Your task to perform on an android device: Search for bose soundlink on target.com, select the first entry, add it to the cart, then select checkout. Image 0: 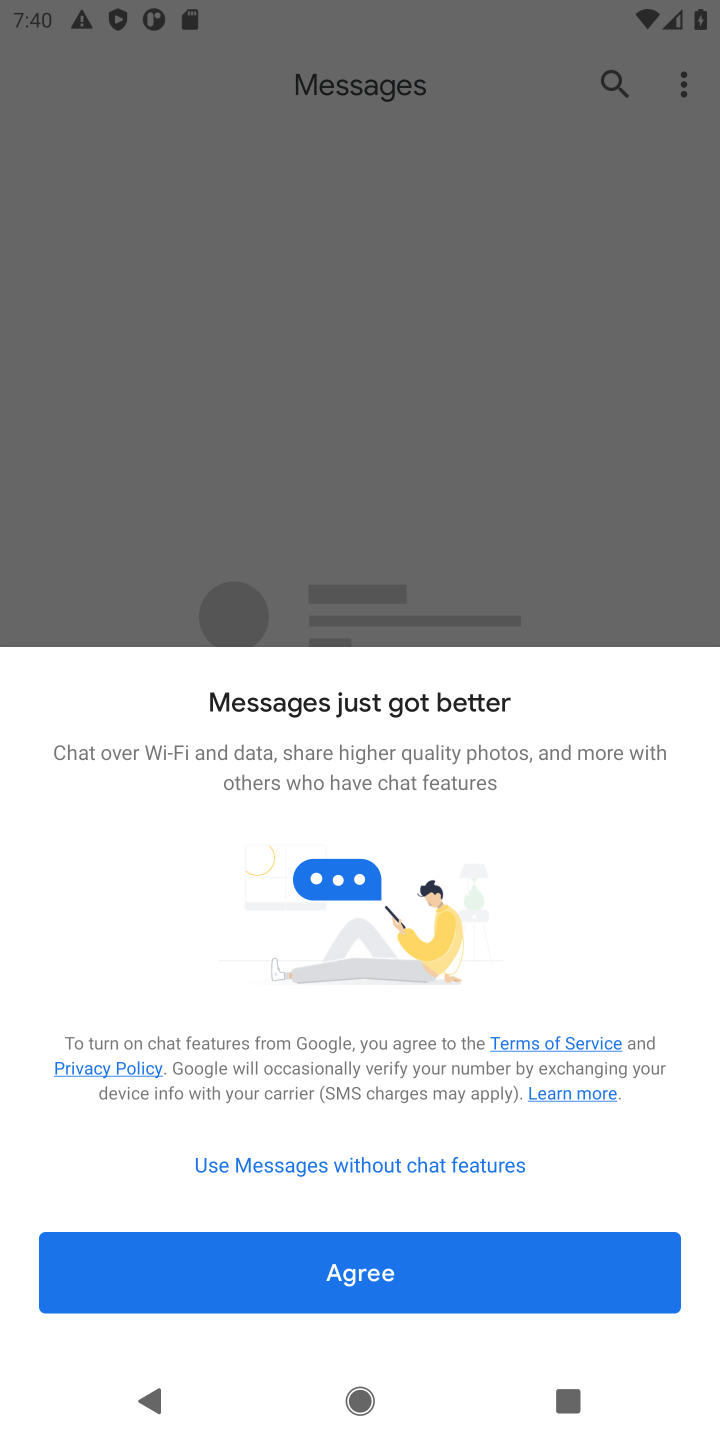
Step 0: press home button
Your task to perform on an android device: Search for bose soundlink on target.com, select the first entry, add it to the cart, then select checkout. Image 1: 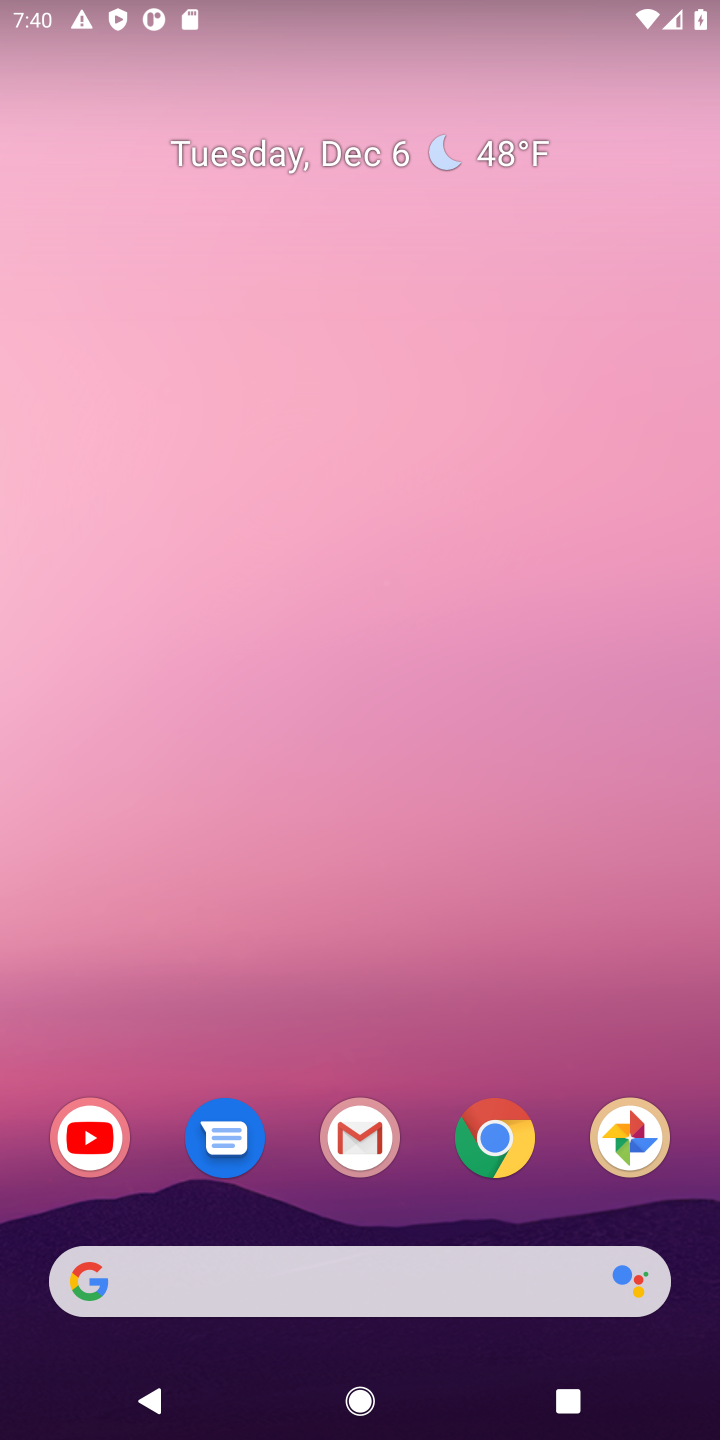
Step 1: click (489, 1156)
Your task to perform on an android device: Search for bose soundlink on target.com, select the first entry, add it to the cart, then select checkout. Image 2: 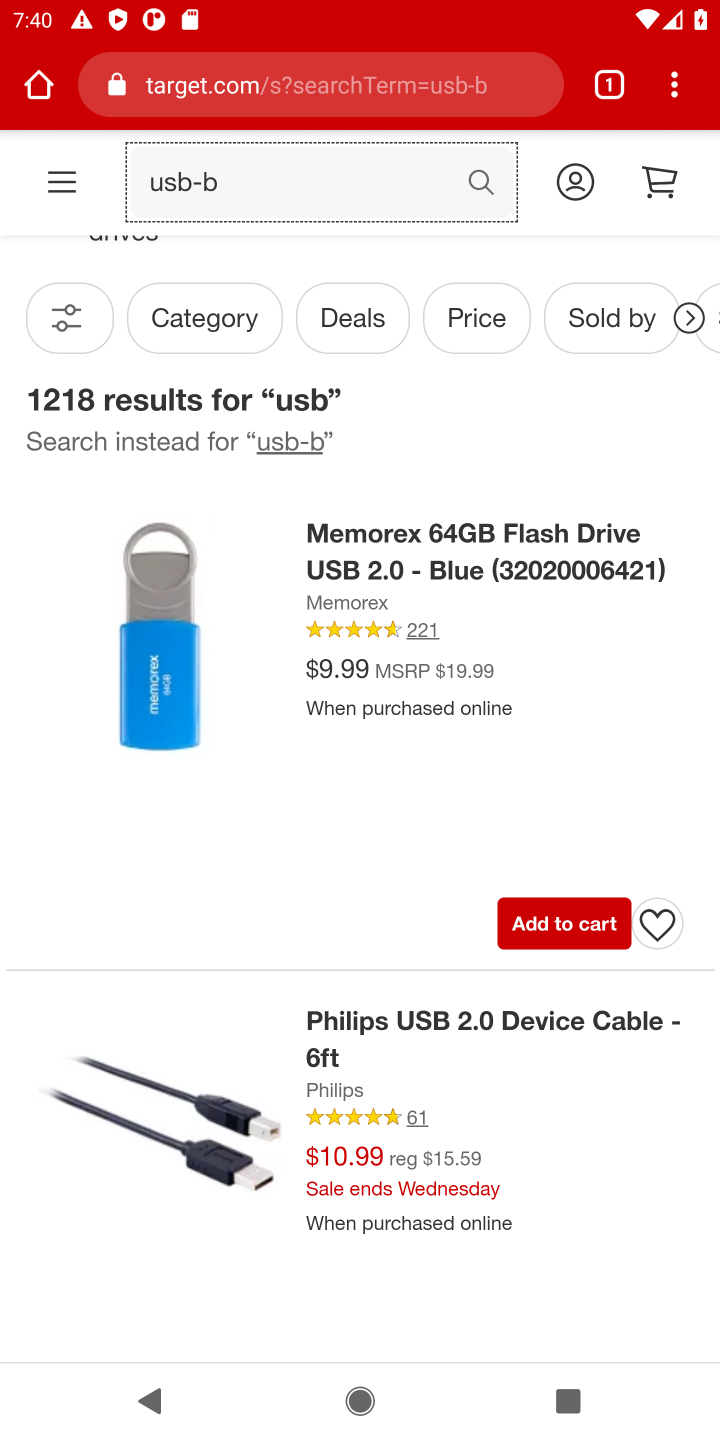
Step 2: click (236, 189)
Your task to perform on an android device: Search for bose soundlink on target.com, select the first entry, add it to the cart, then select checkout. Image 3: 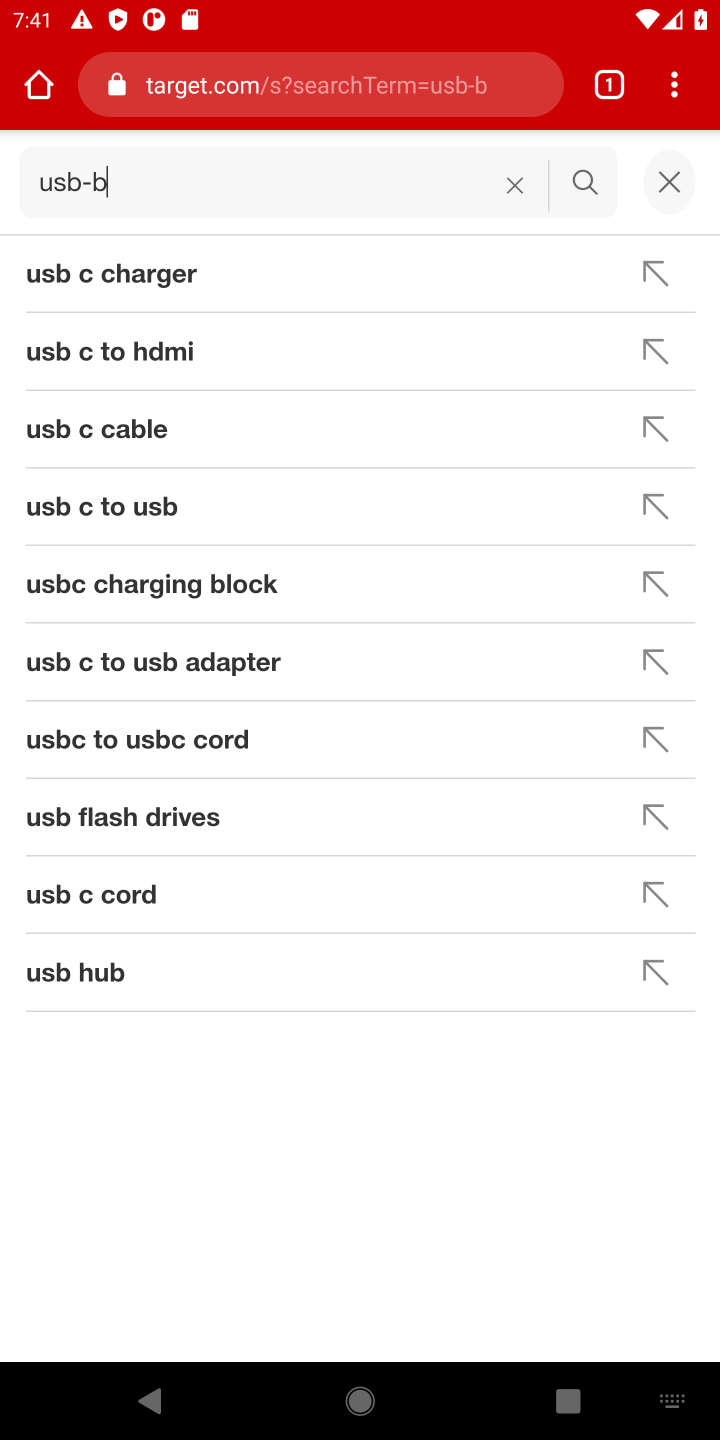
Step 3: click (518, 185)
Your task to perform on an android device: Search for bose soundlink on target.com, select the first entry, add it to the cart, then select checkout. Image 4: 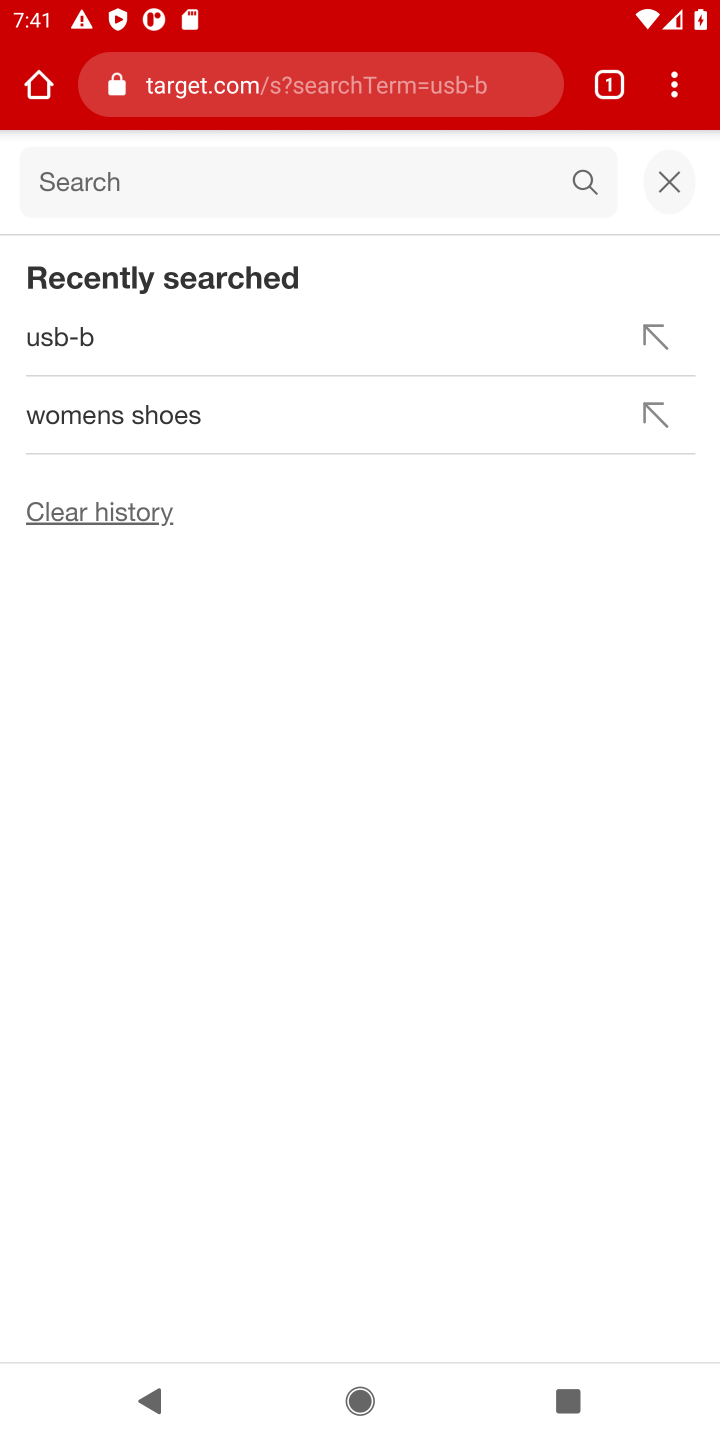
Step 4: click (57, 177)
Your task to perform on an android device: Search for bose soundlink on target.com, select the first entry, add it to the cart, then select checkout. Image 5: 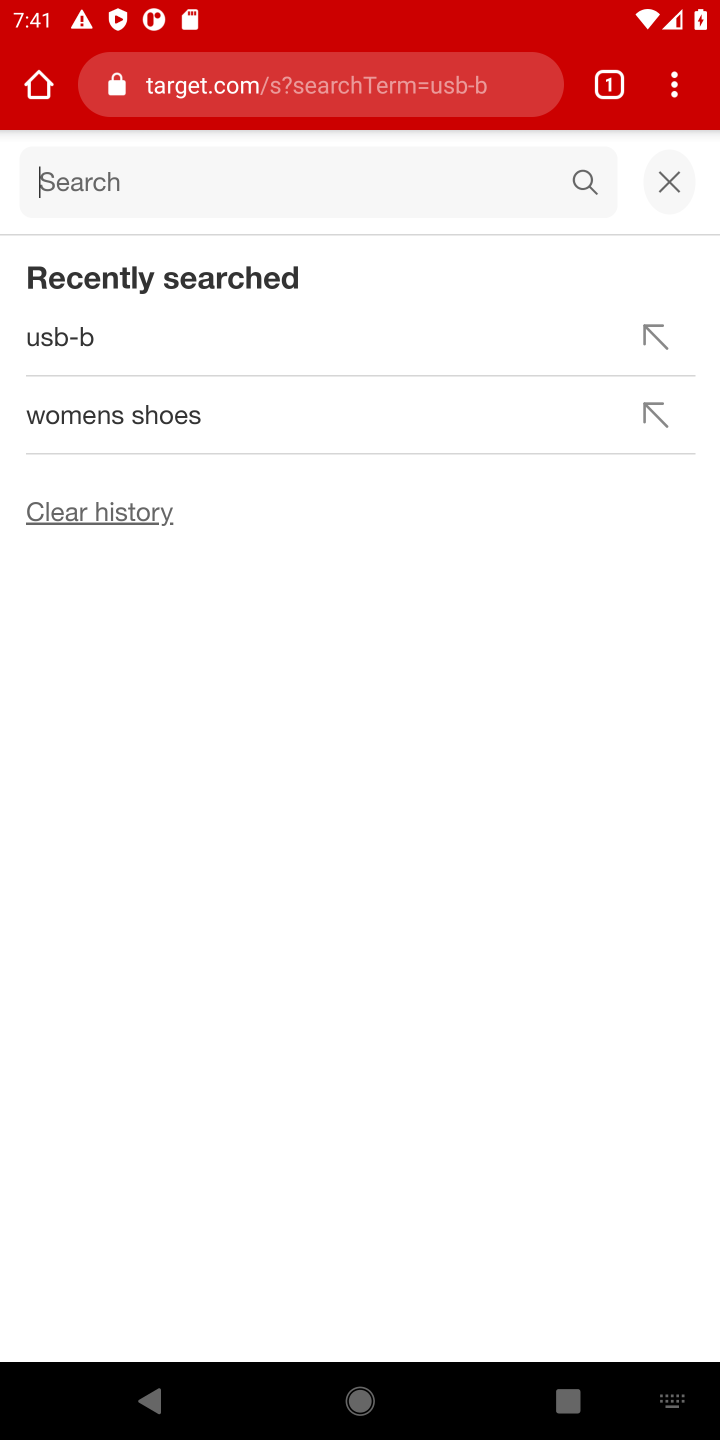
Step 5: type " bose soundlink"
Your task to perform on an android device: Search for bose soundlink on target.com, select the first entry, add it to the cart, then select checkout. Image 6: 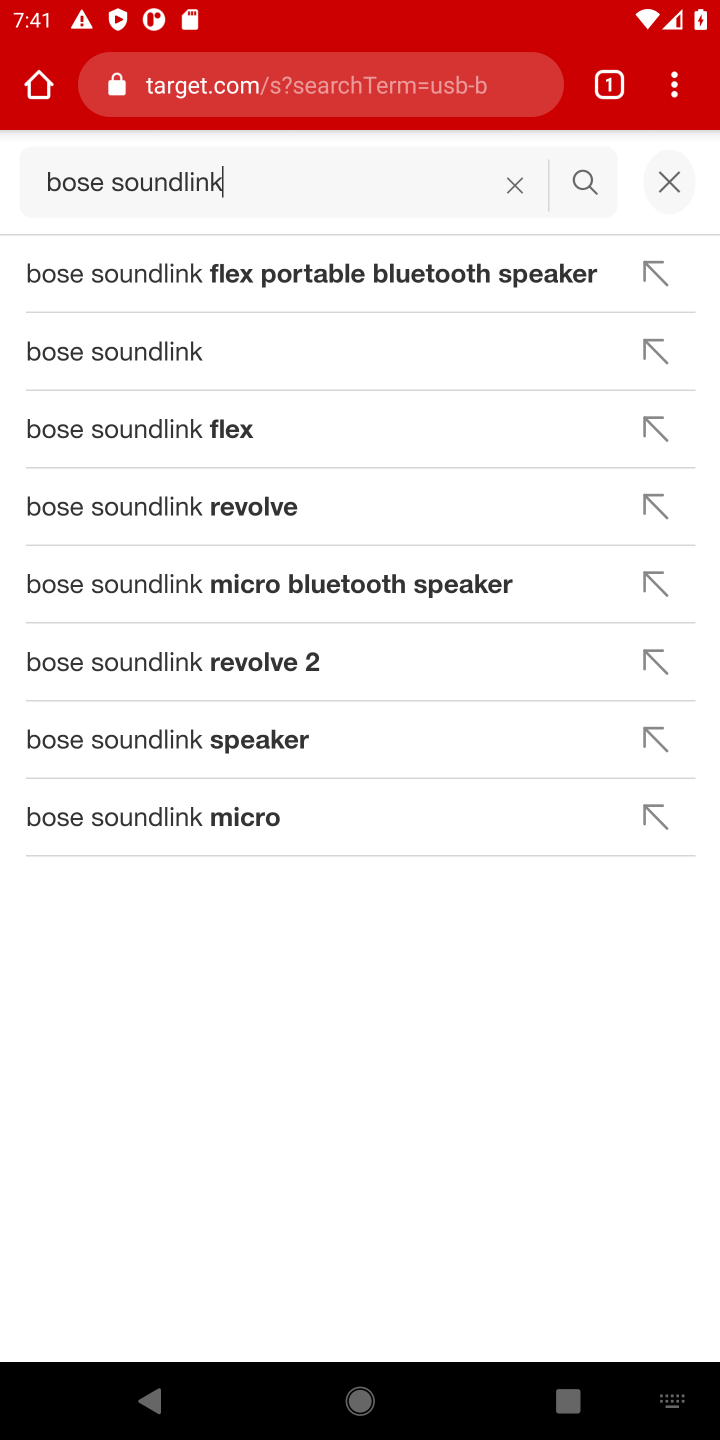
Step 6: click (159, 351)
Your task to perform on an android device: Search for bose soundlink on target.com, select the first entry, add it to the cart, then select checkout. Image 7: 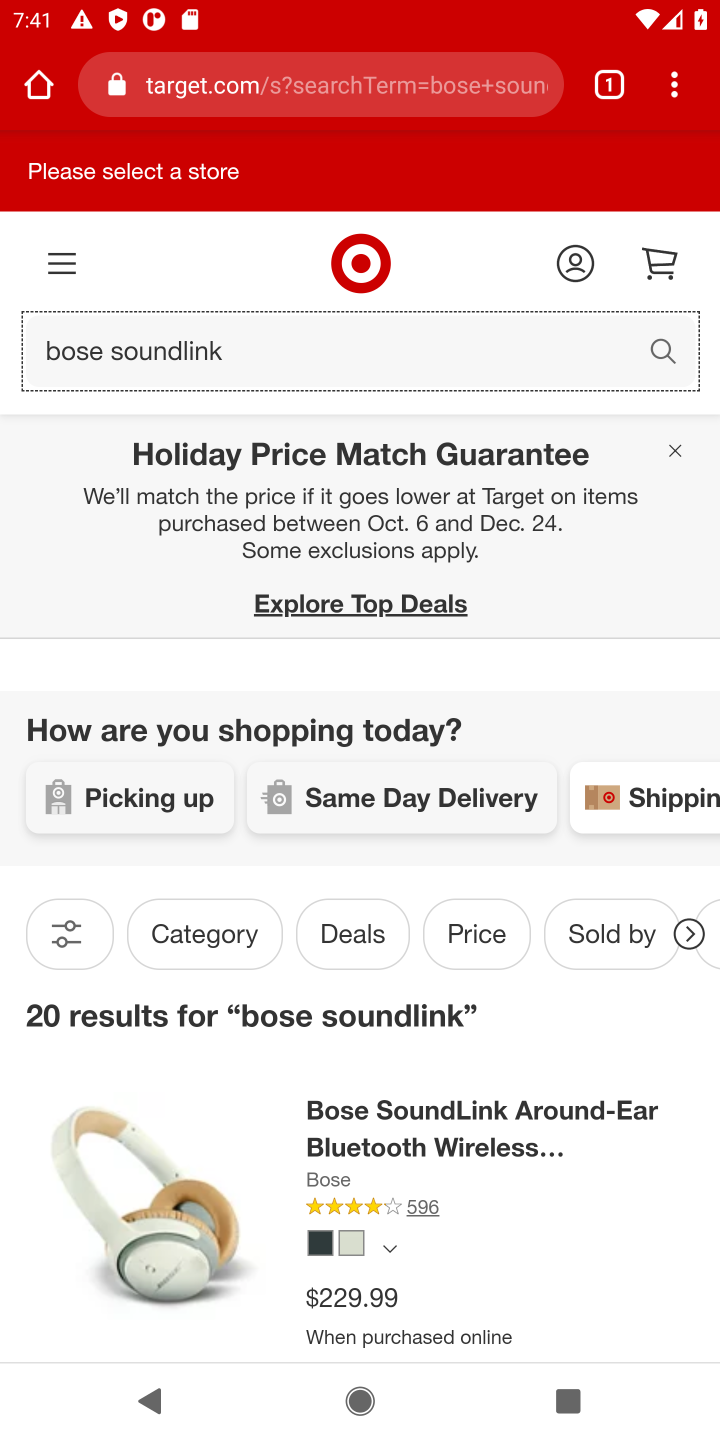
Step 7: drag from (392, 1159) to (363, 675)
Your task to perform on an android device: Search for bose soundlink on target.com, select the first entry, add it to the cart, then select checkout. Image 8: 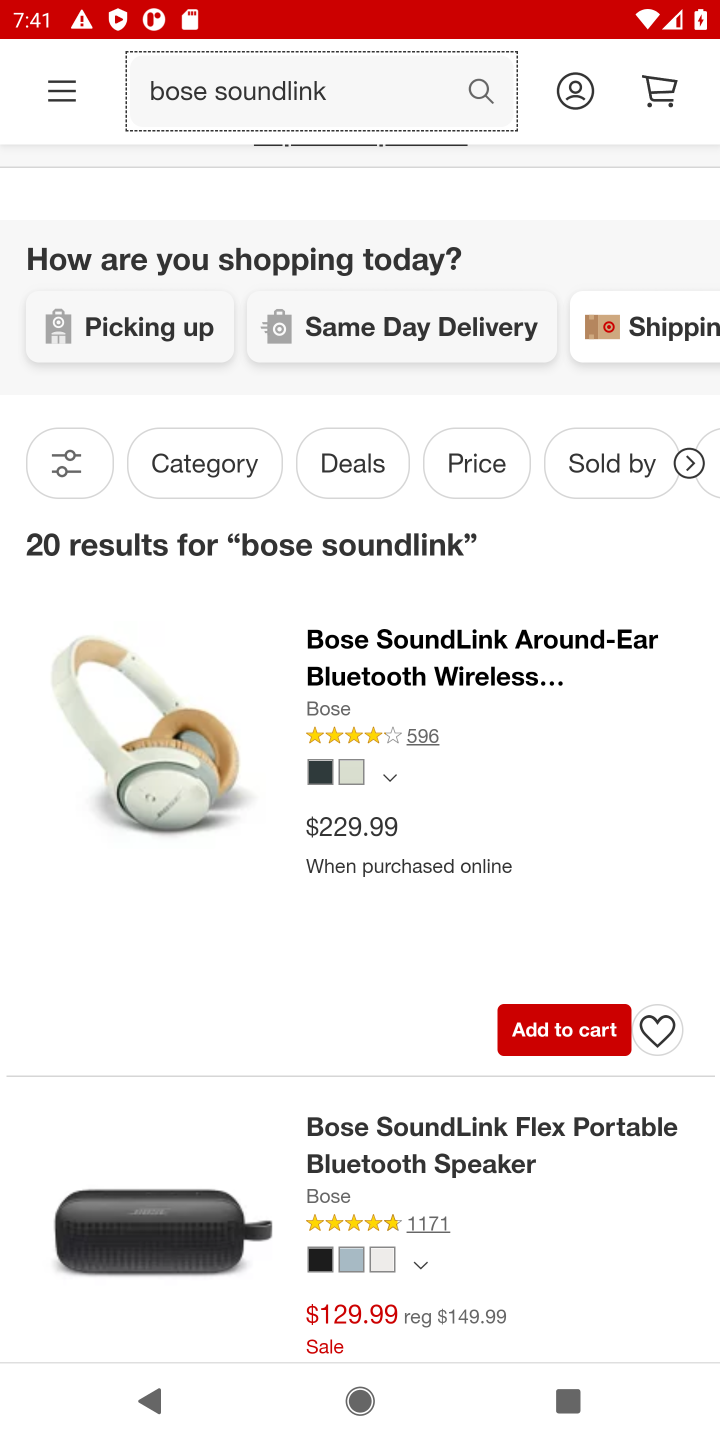
Step 8: click (557, 1036)
Your task to perform on an android device: Search for bose soundlink on target.com, select the first entry, add it to the cart, then select checkout. Image 9: 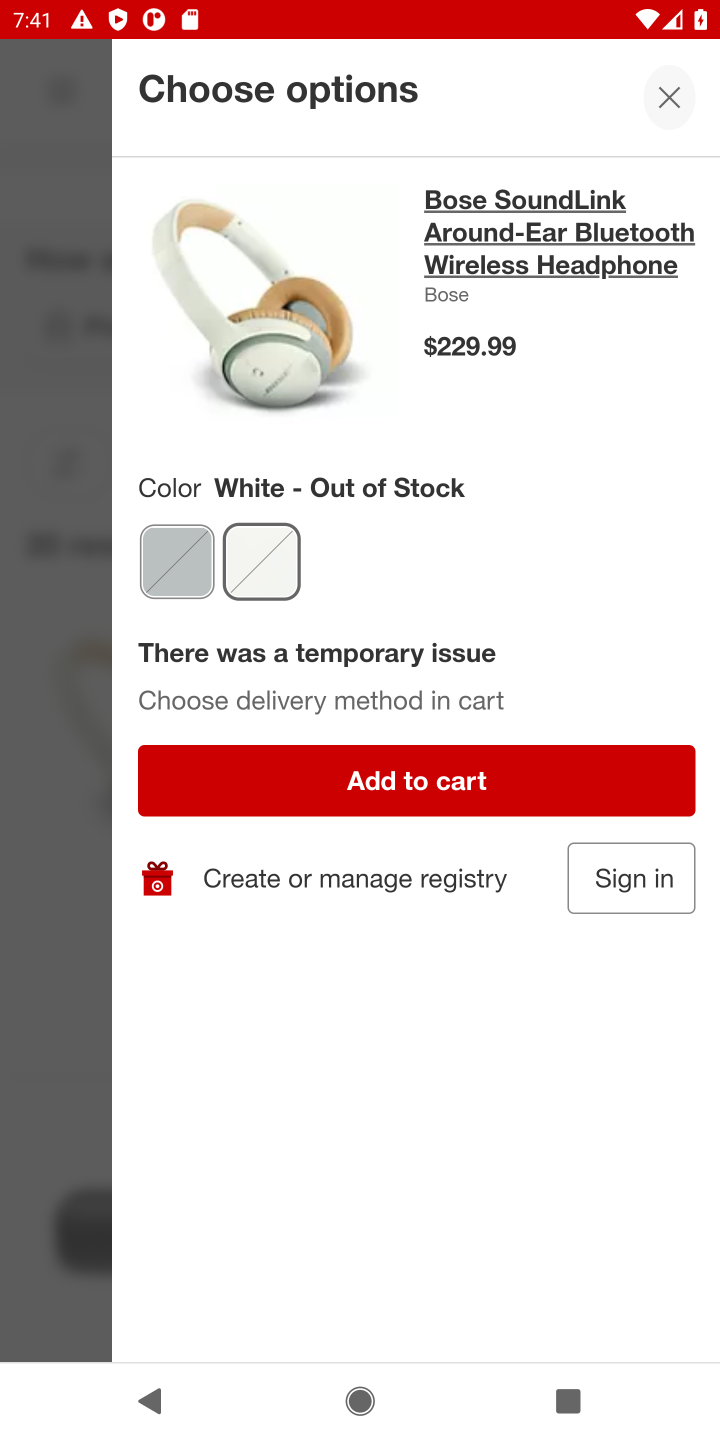
Step 9: click (395, 792)
Your task to perform on an android device: Search for bose soundlink on target.com, select the first entry, add it to the cart, then select checkout. Image 10: 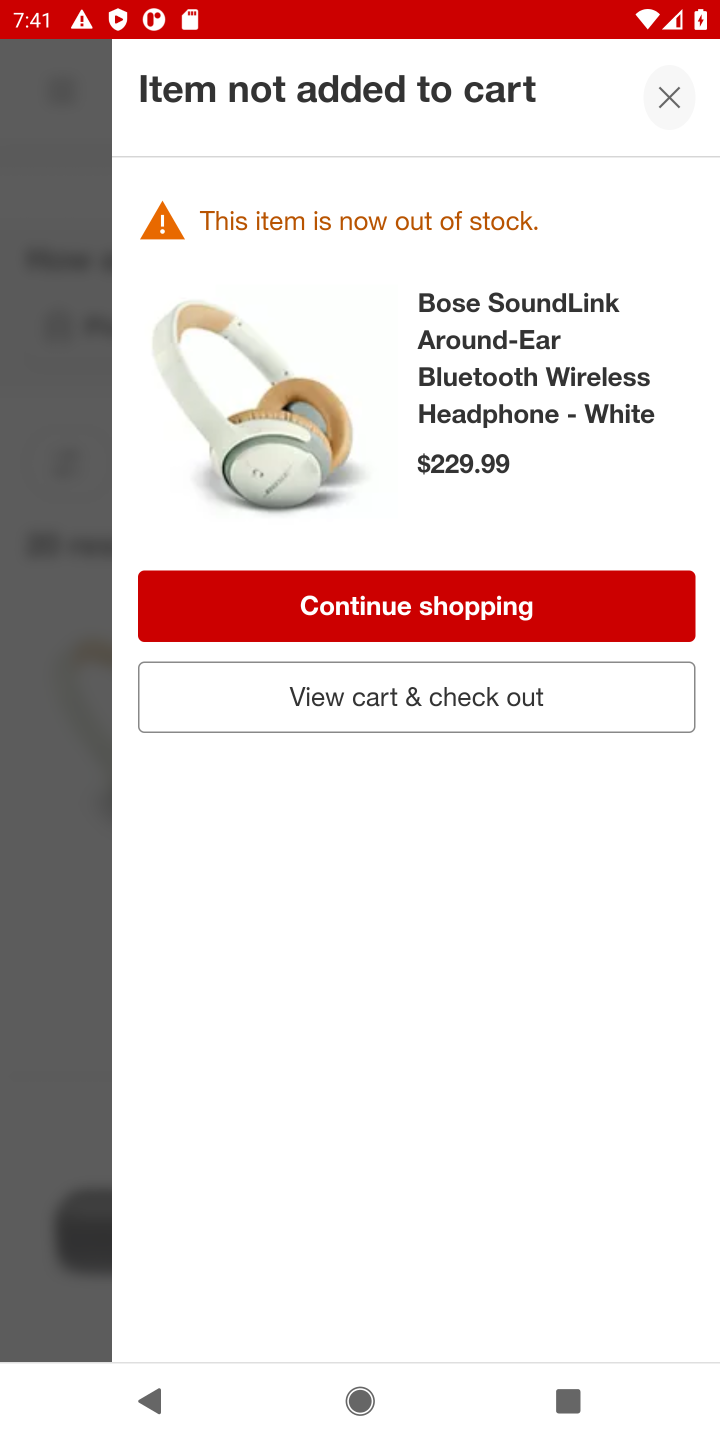
Step 10: click (389, 708)
Your task to perform on an android device: Search for bose soundlink on target.com, select the first entry, add it to the cart, then select checkout. Image 11: 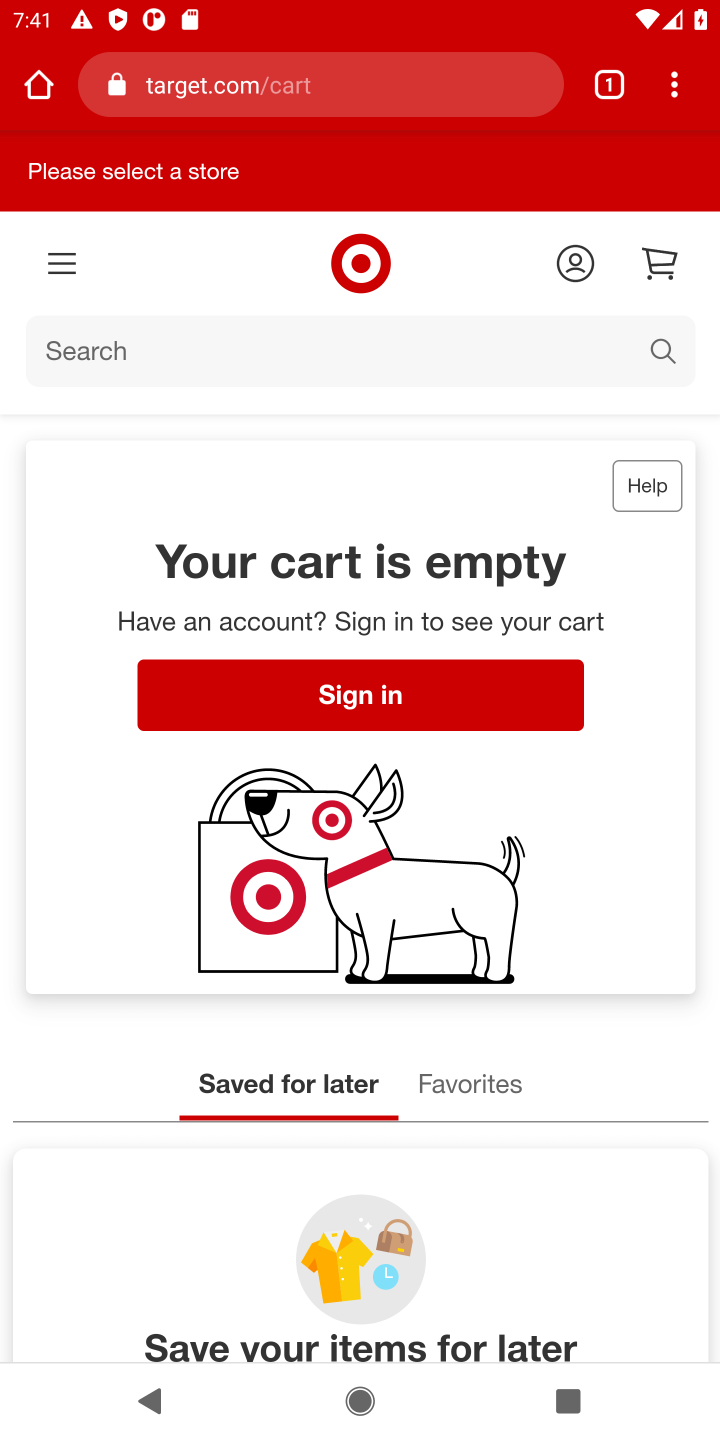
Step 11: task complete